Your task to perform on an android device: toggle priority inbox in the gmail app Image 0: 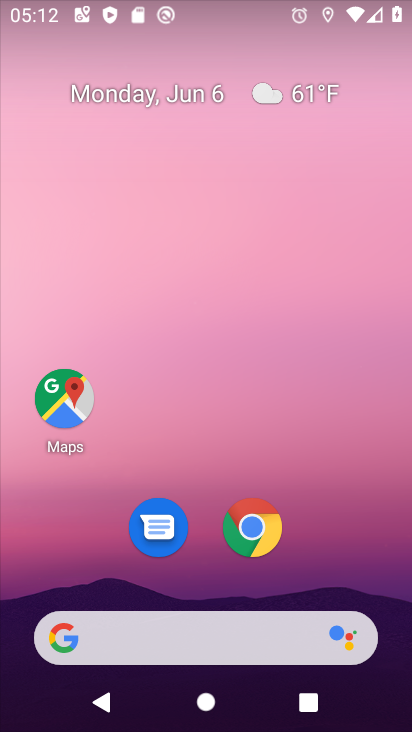
Step 0: drag from (395, 670) to (332, 46)
Your task to perform on an android device: toggle priority inbox in the gmail app Image 1: 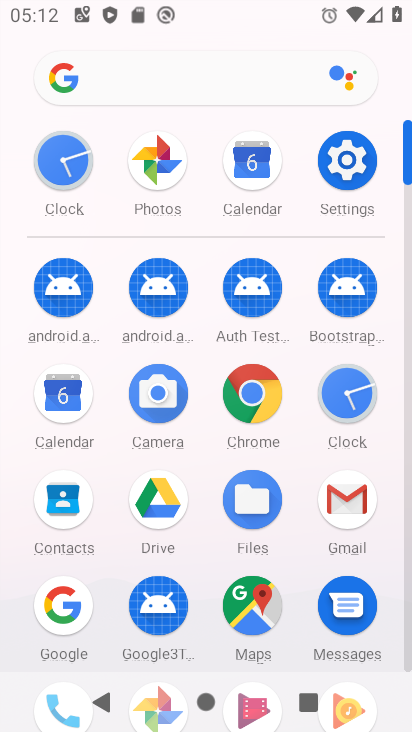
Step 1: click (354, 479)
Your task to perform on an android device: toggle priority inbox in the gmail app Image 2: 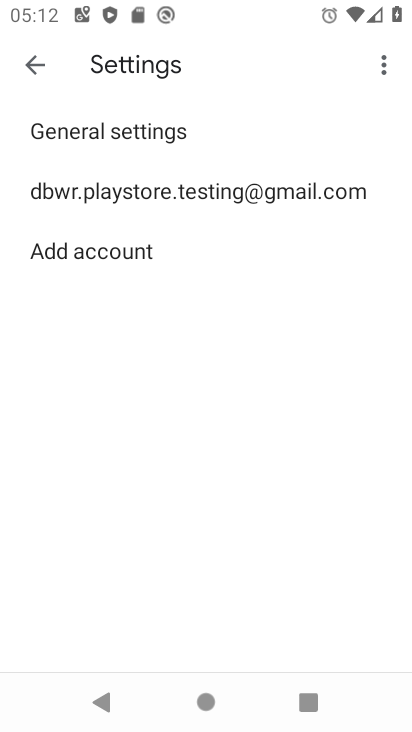
Step 2: click (48, 177)
Your task to perform on an android device: toggle priority inbox in the gmail app Image 3: 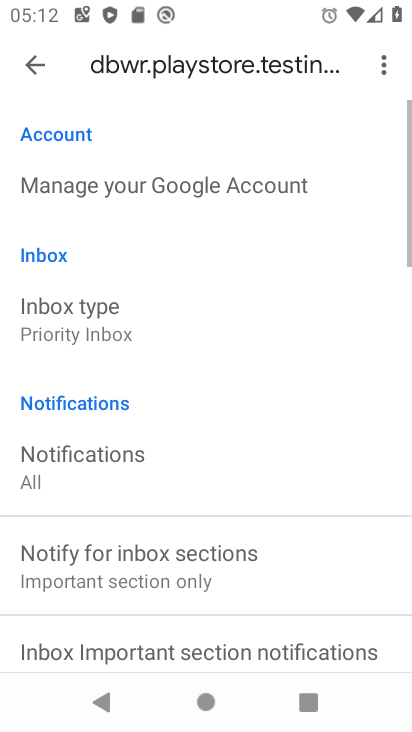
Step 3: click (59, 314)
Your task to perform on an android device: toggle priority inbox in the gmail app Image 4: 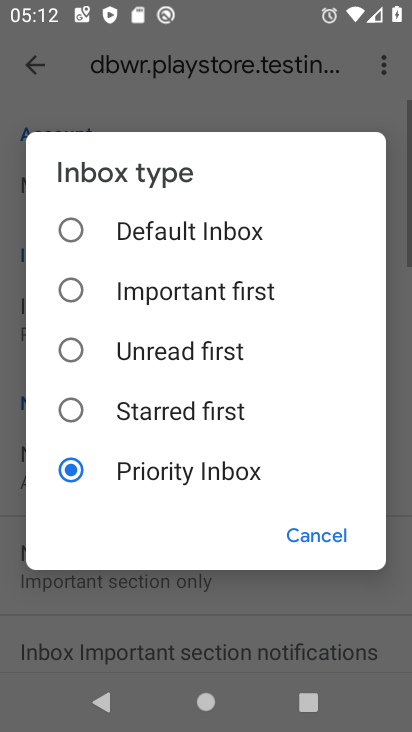
Step 4: click (70, 228)
Your task to perform on an android device: toggle priority inbox in the gmail app Image 5: 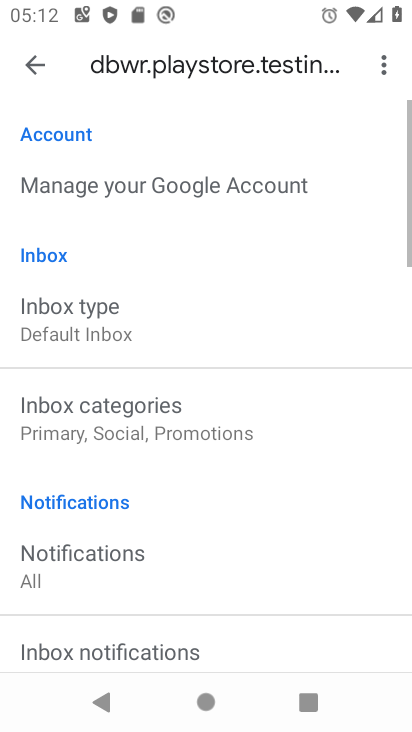
Step 5: task complete